Your task to perform on an android device: Add "logitech g pro" to the cart on ebay.com, then select checkout. Image 0: 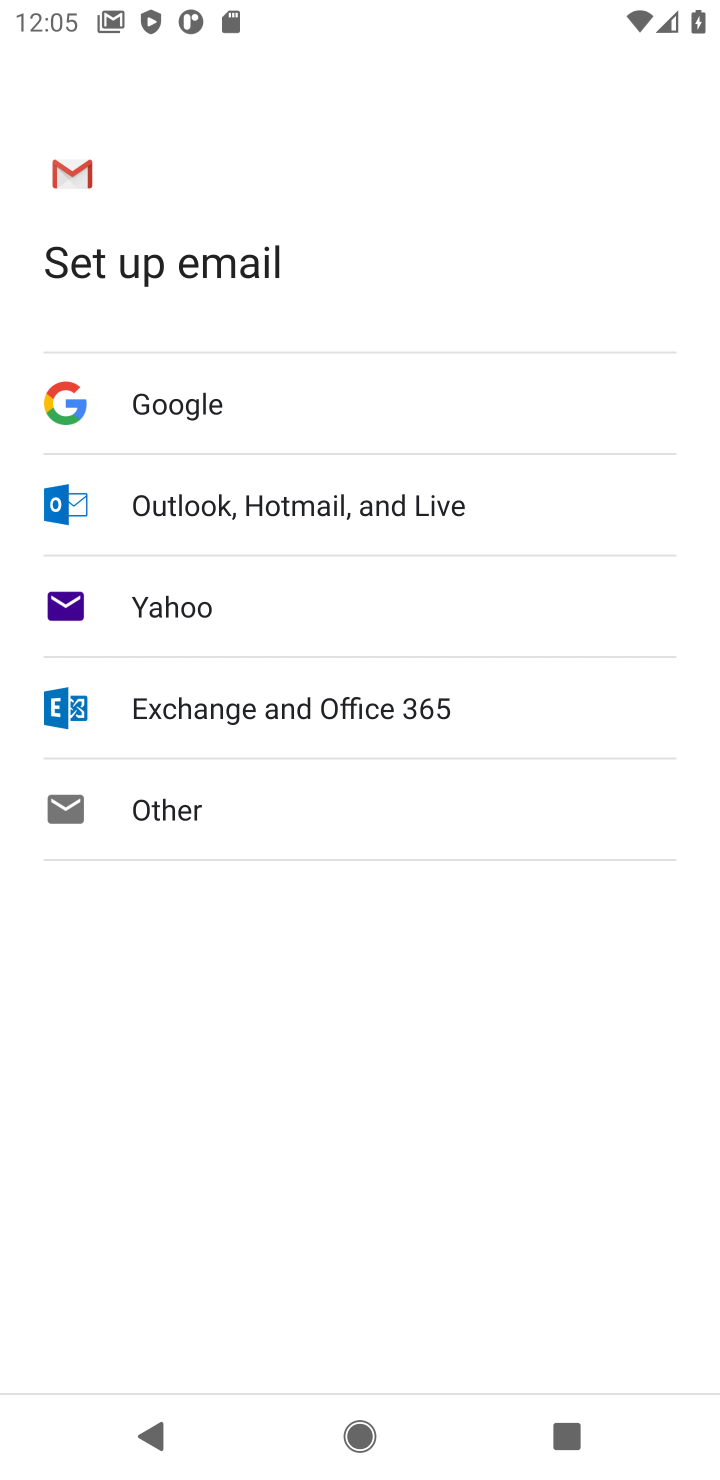
Step 0: press home button
Your task to perform on an android device: Add "logitech g pro" to the cart on ebay.com, then select checkout. Image 1: 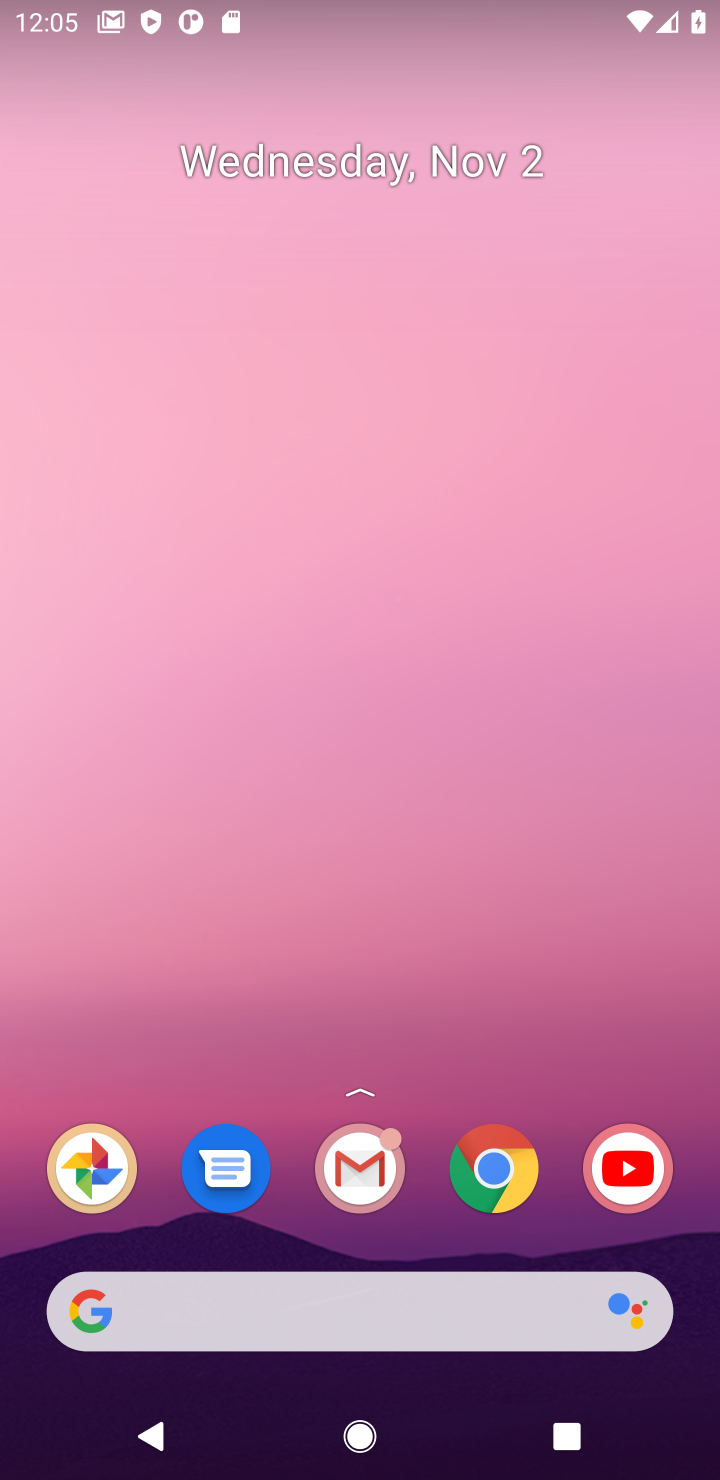
Step 1: click (491, 1175)
Your task to perform on an android device: Add "logitech g pro" to the cart on ebay.com, then select checkout. Image 2: 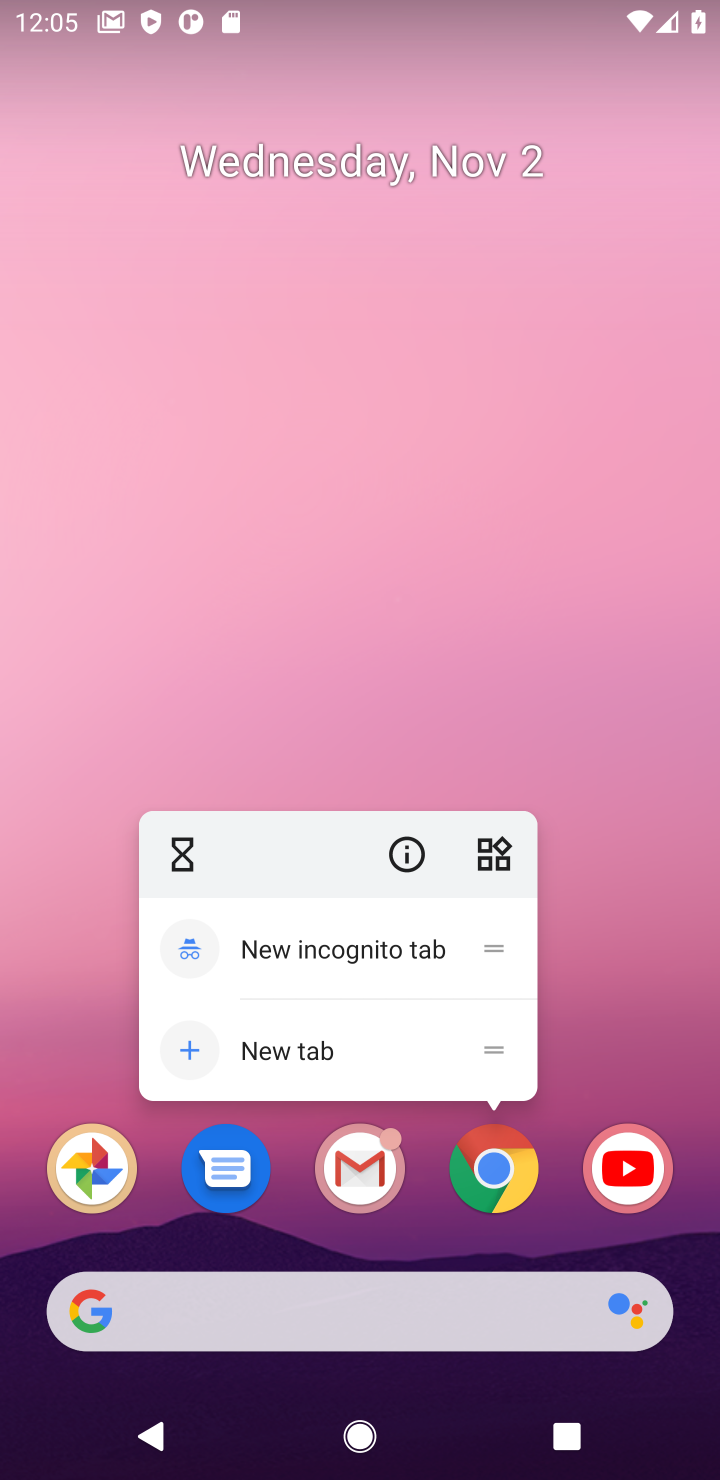
Step 2: click (491, 1175)
Your task to perform on an android device: Add "logitech g pro" to the cart on ebay.com, then select checkout. Image 3: 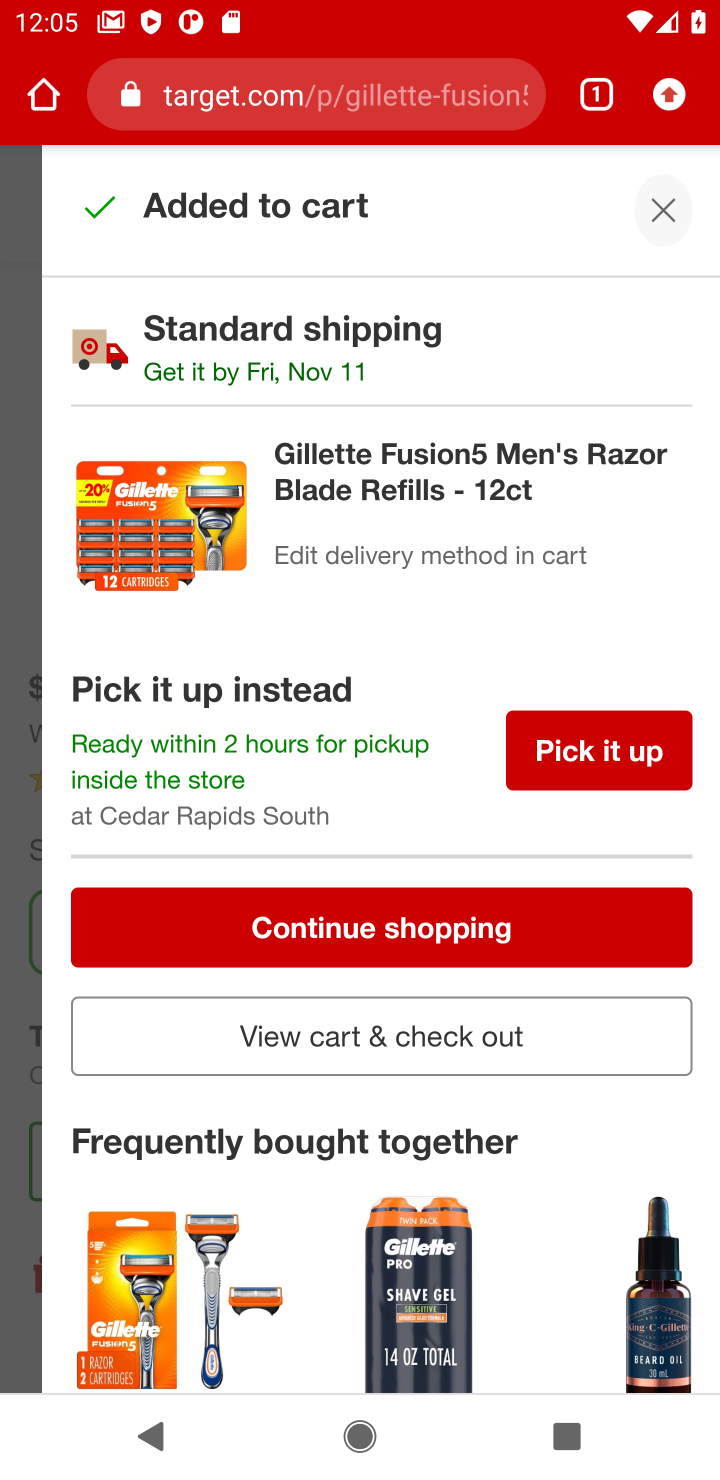
Step 3: click (370, 113)
Your task to perform on an android device: Add "logitech g pro" to the cart on ebay.com, then select checkout. Image 4: 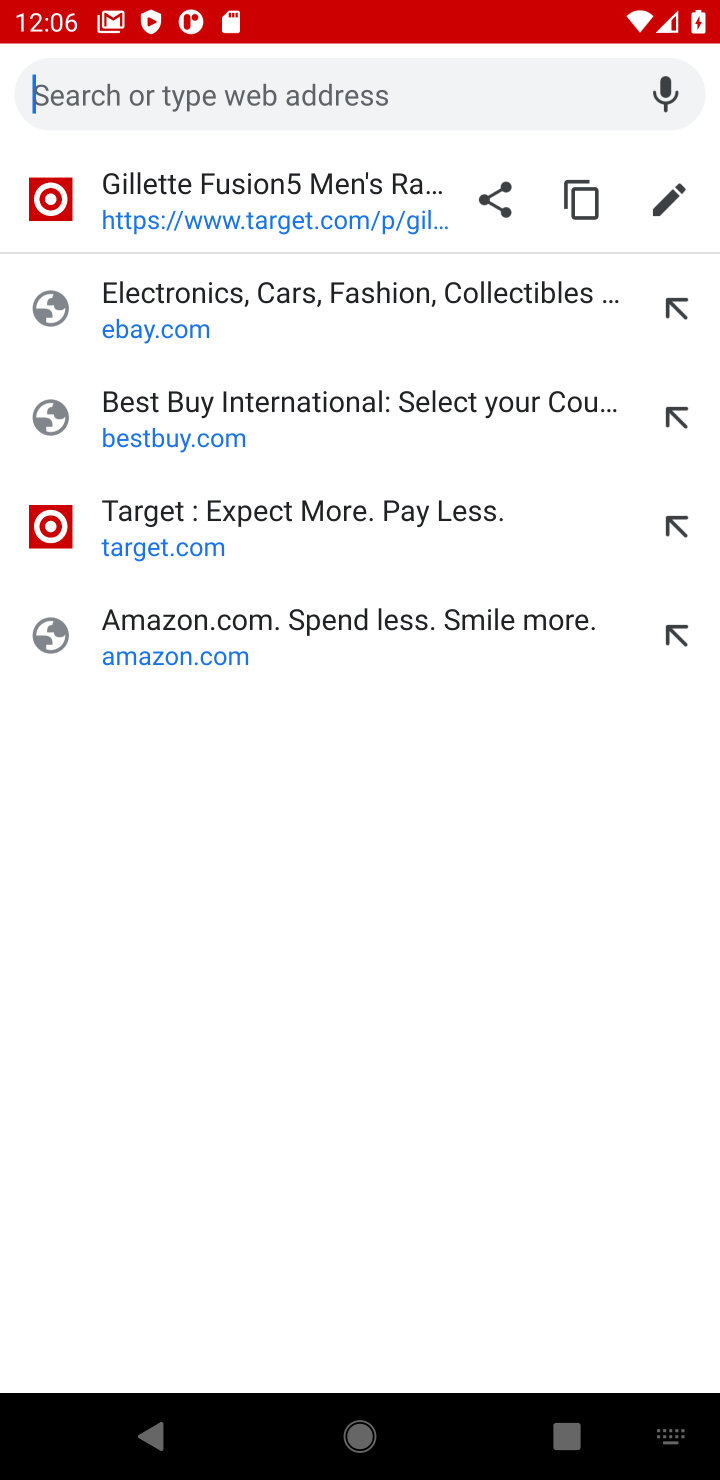
Step 4: press enter
Your task to perform on an android device: Add "logitech g pro" to the cart on ebay.com, then select checkout. Image 5: 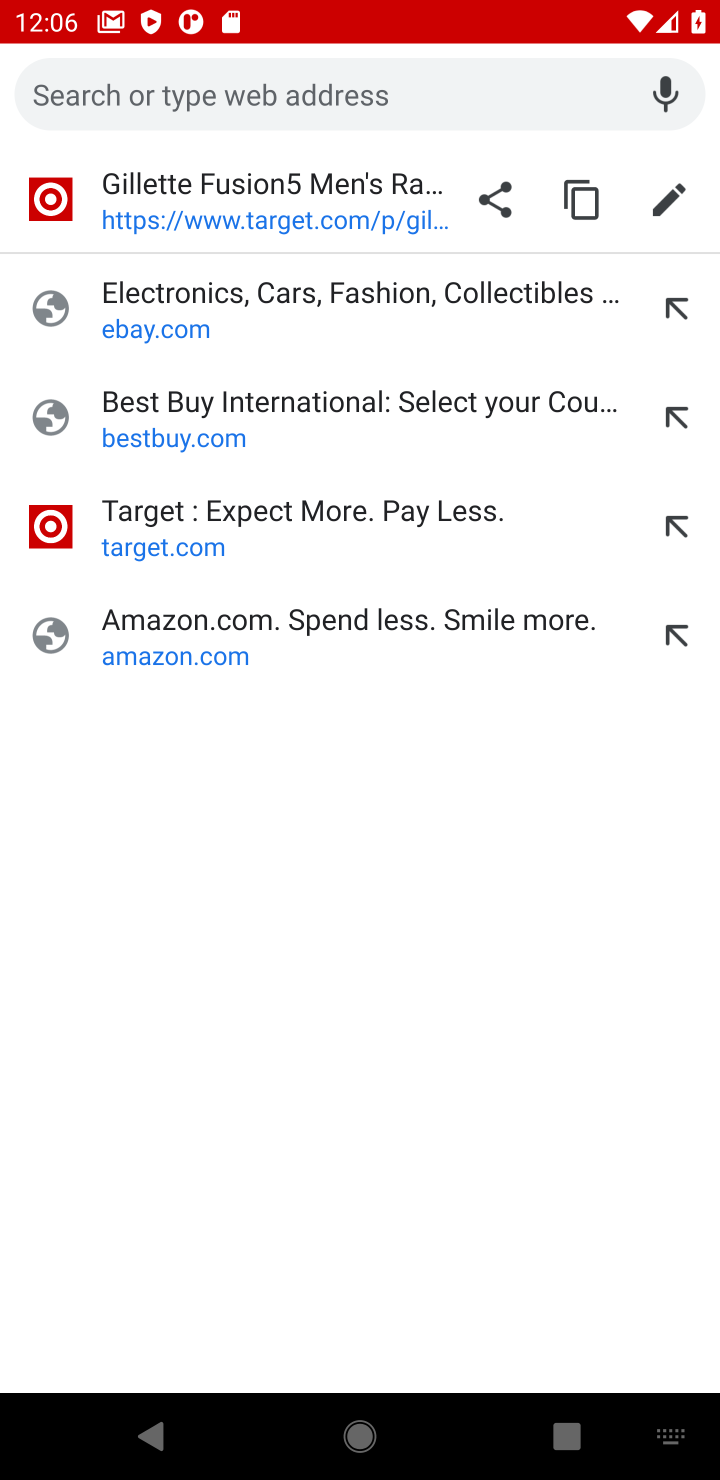
Step 5: type "ebay.com"
Your task to perform on an android device: Add "logitech g pro" to the cart on ebay.com, then select checkout. Image 6: 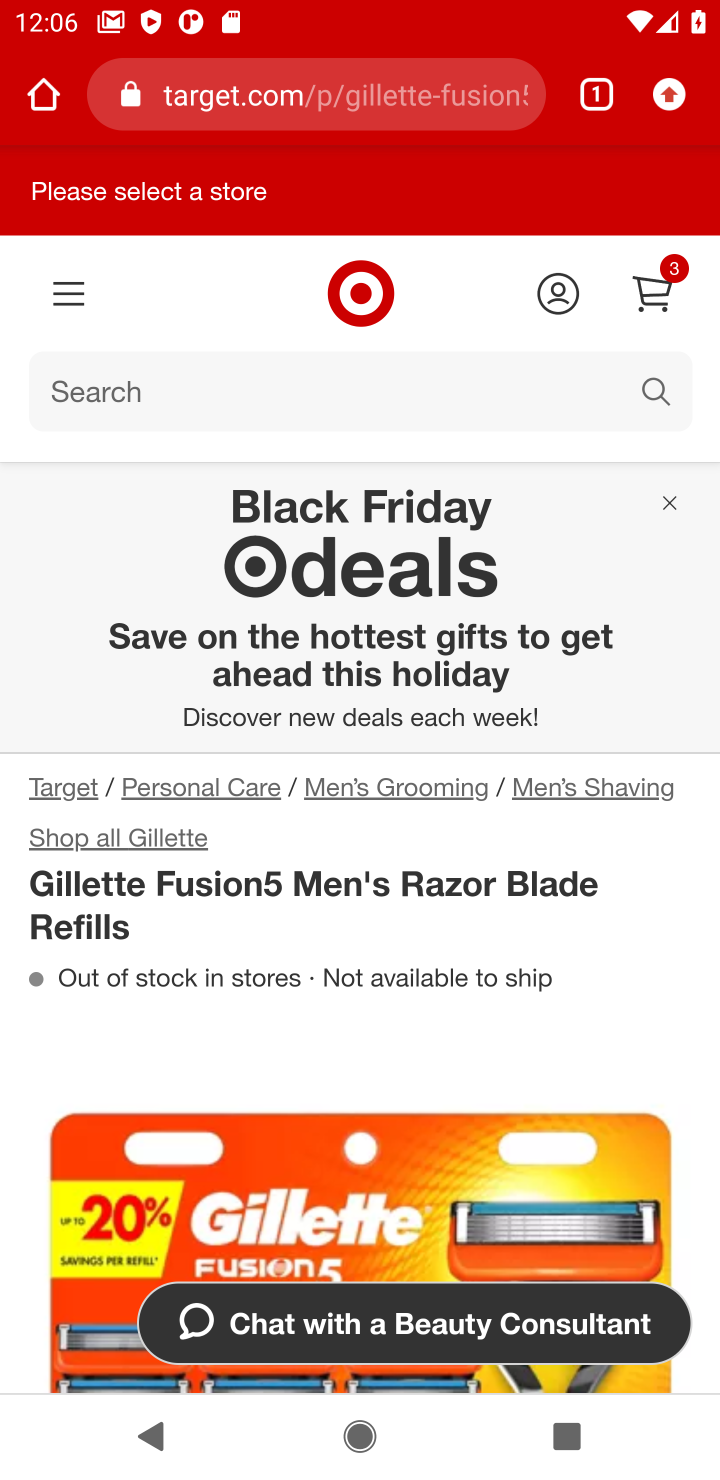
Step 6: click (39, 90)
Your task to perform on an android device: Add "logitech g pro" to the cart on ebay.com, then select checkout. Image 7: 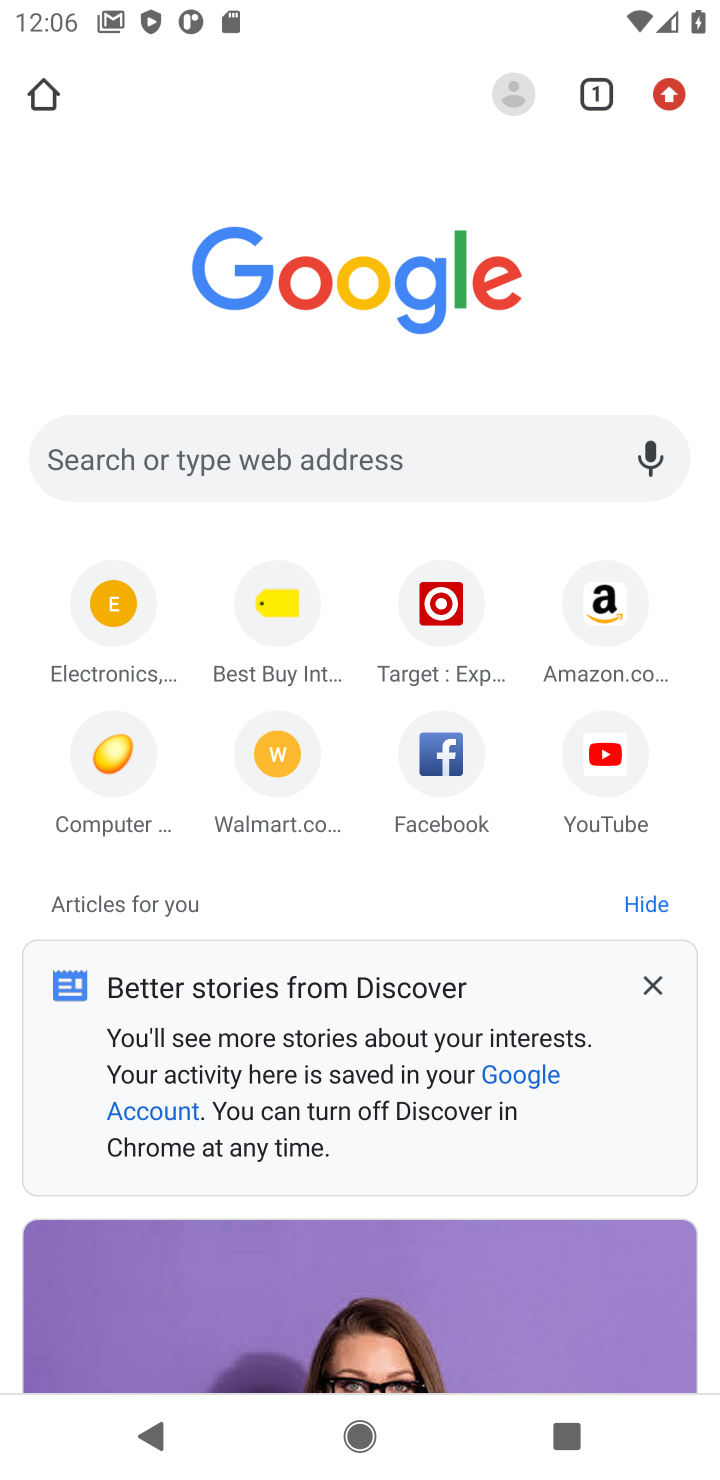
Step 7: click (454, 454)
Your task to perform on an android device: Add "logitech g pro" to the cart on ebay.com, then select checkout. Image 8: 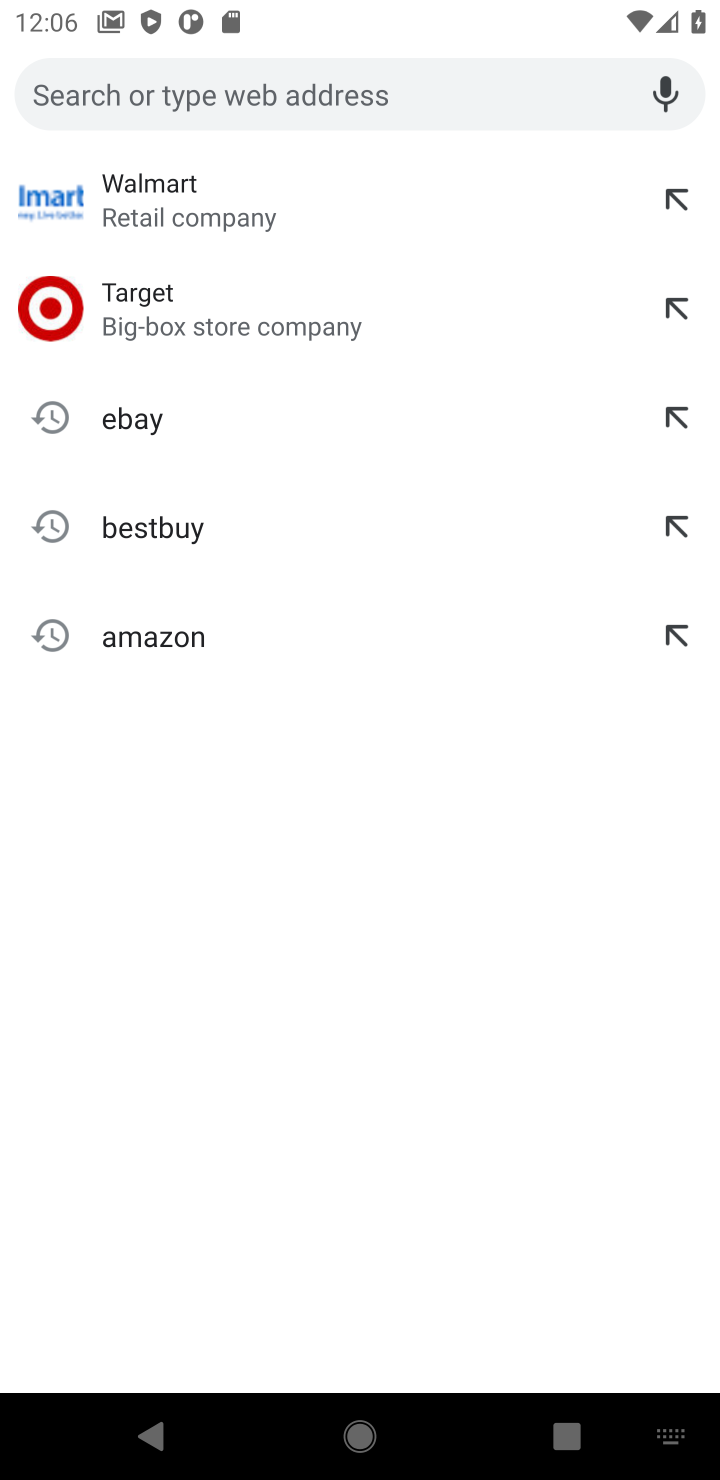
Step 8: press enter
Your task to perform on an android device: Add "logitech g pro" to the cart on ebay.com, then select checkout. Image 9: 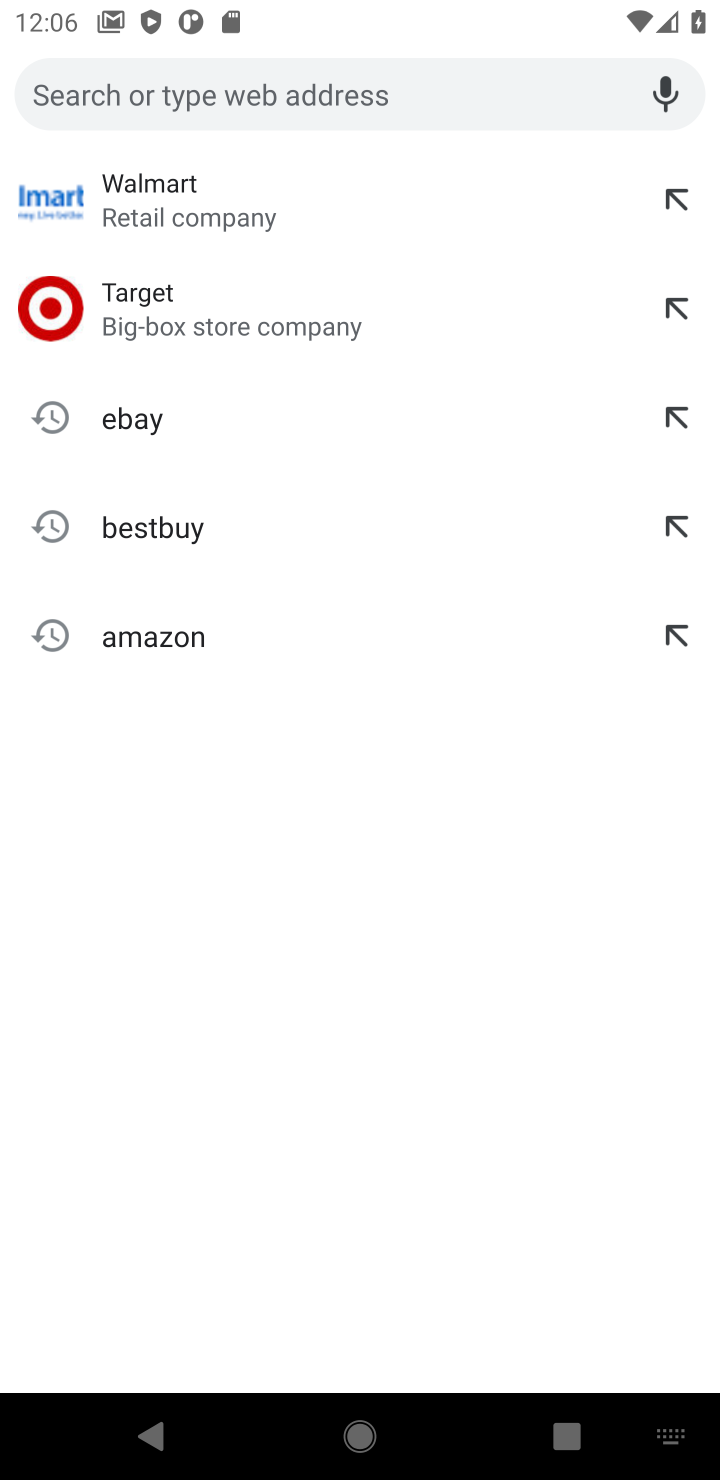
Step 9: type "ebay.com"
Your task to perform on an android device: Add "logitech g pro" to the cart on ebay.com, then select checkout. Image 10: 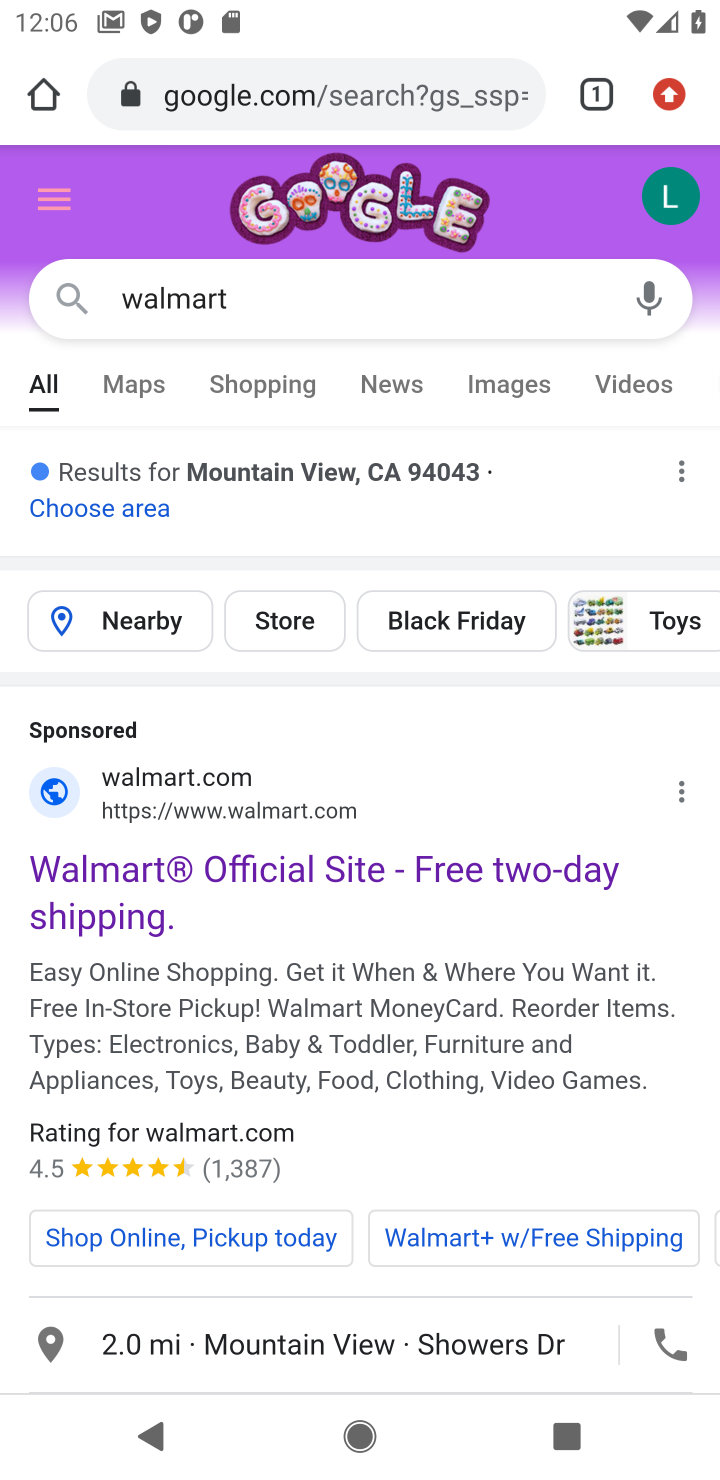
Step 10: click (420, 92)
Your task to perform on an android device: Add "logitech g pro" to the cart on ebay.com, then select checkout. Image 11: 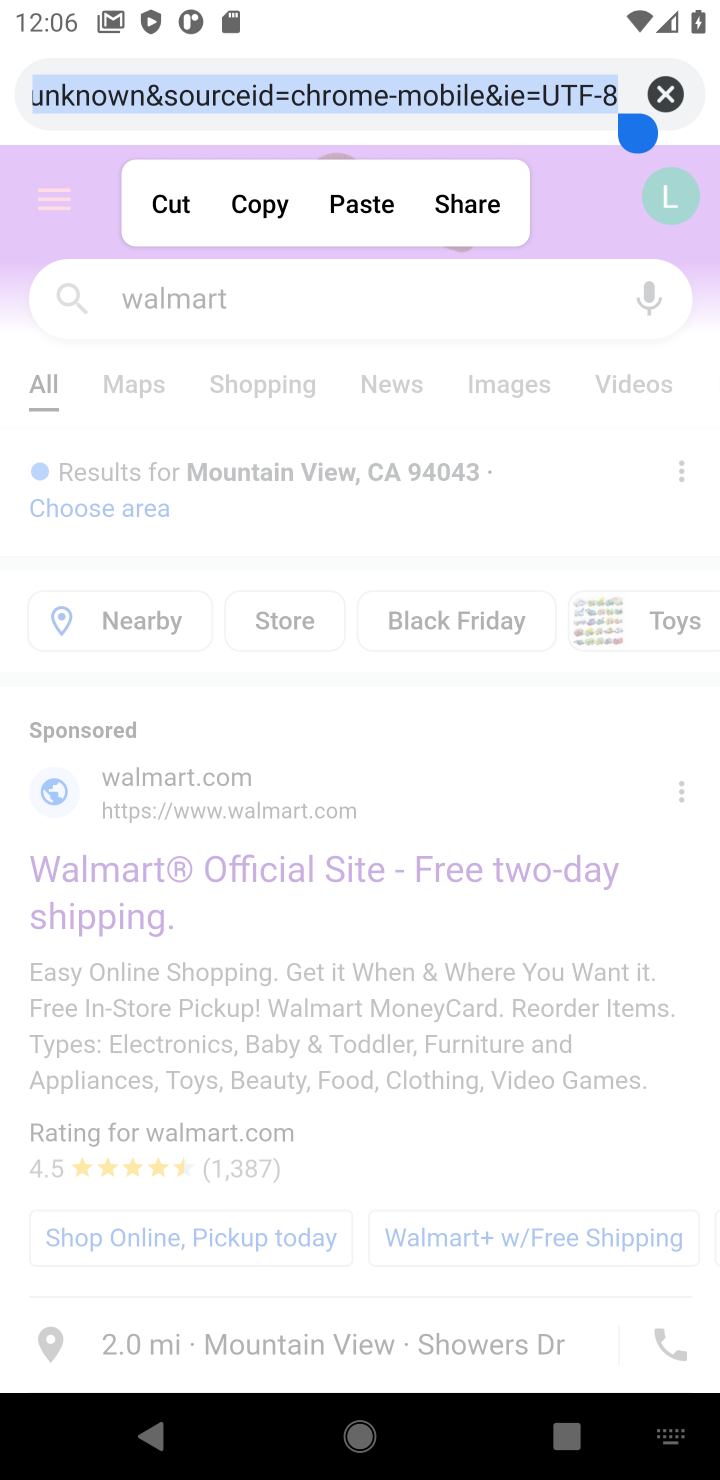
Step 11: click (660, 97)
Your task to perform on an android device: Add "logitech g pro" to the cart on ebay.com, then select checkout. Image 12: 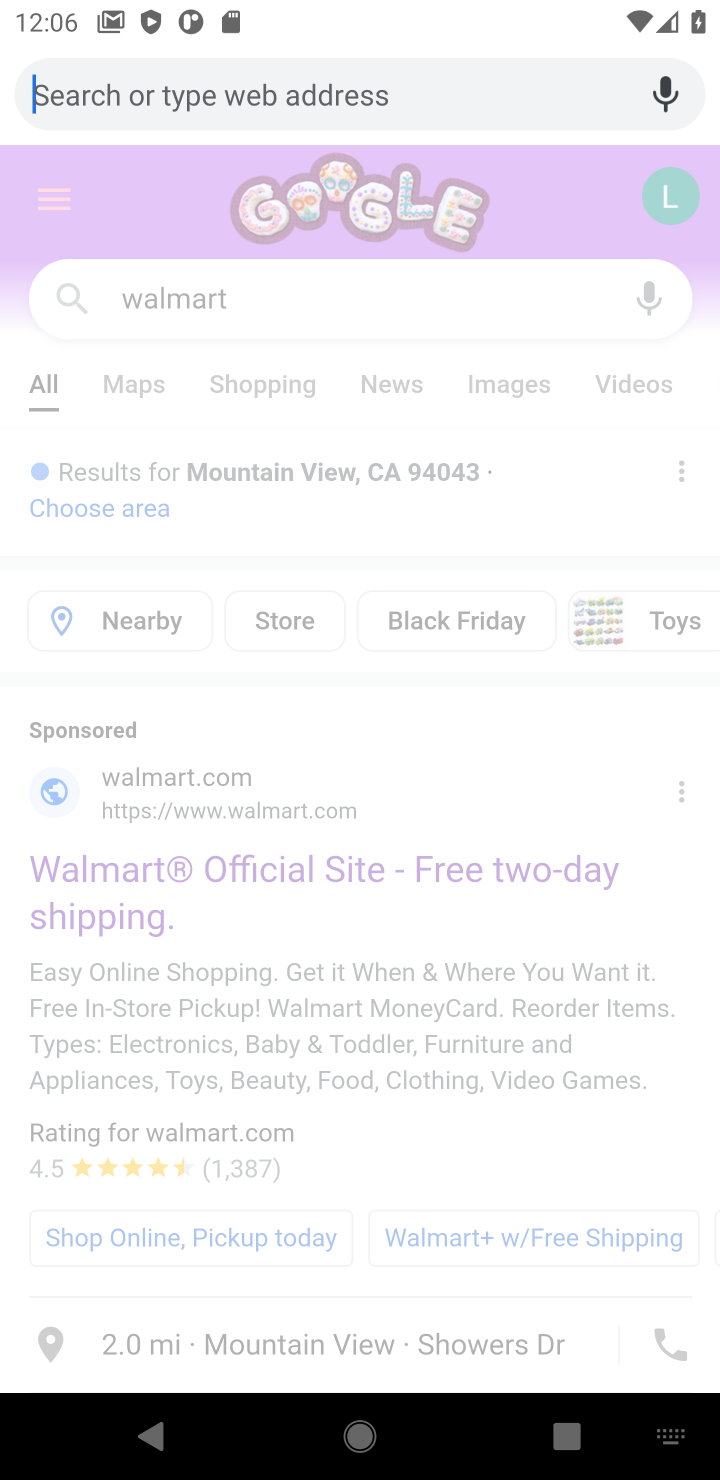
Step 12: press enter
Your task to perform on an android device: Add "logitech g pro" to the cart on ebay.com, then select checkout. Image 13: 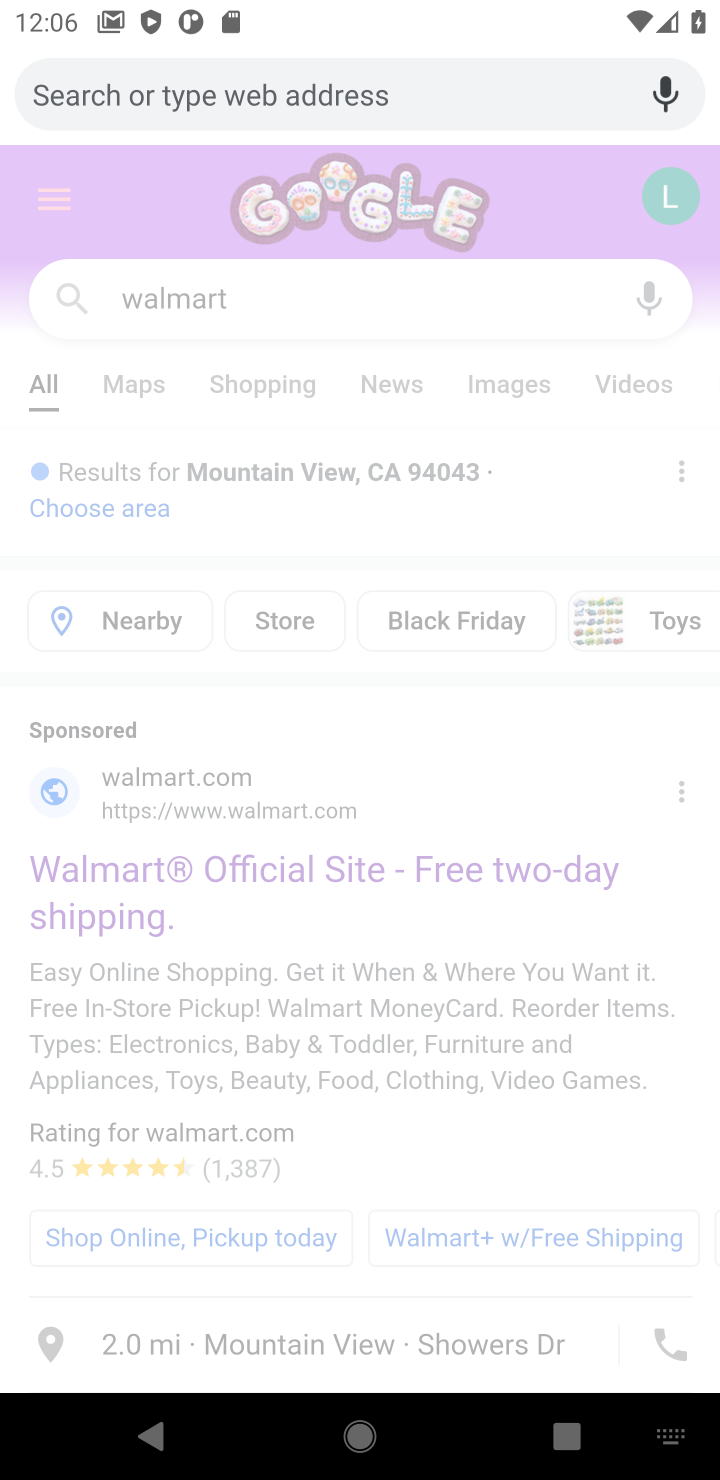
Step 13: type "ebay.com"
Your task to perform on an android device: Add "logitech g pro" to the cart on ebay.com, then select checkout. Image 14: 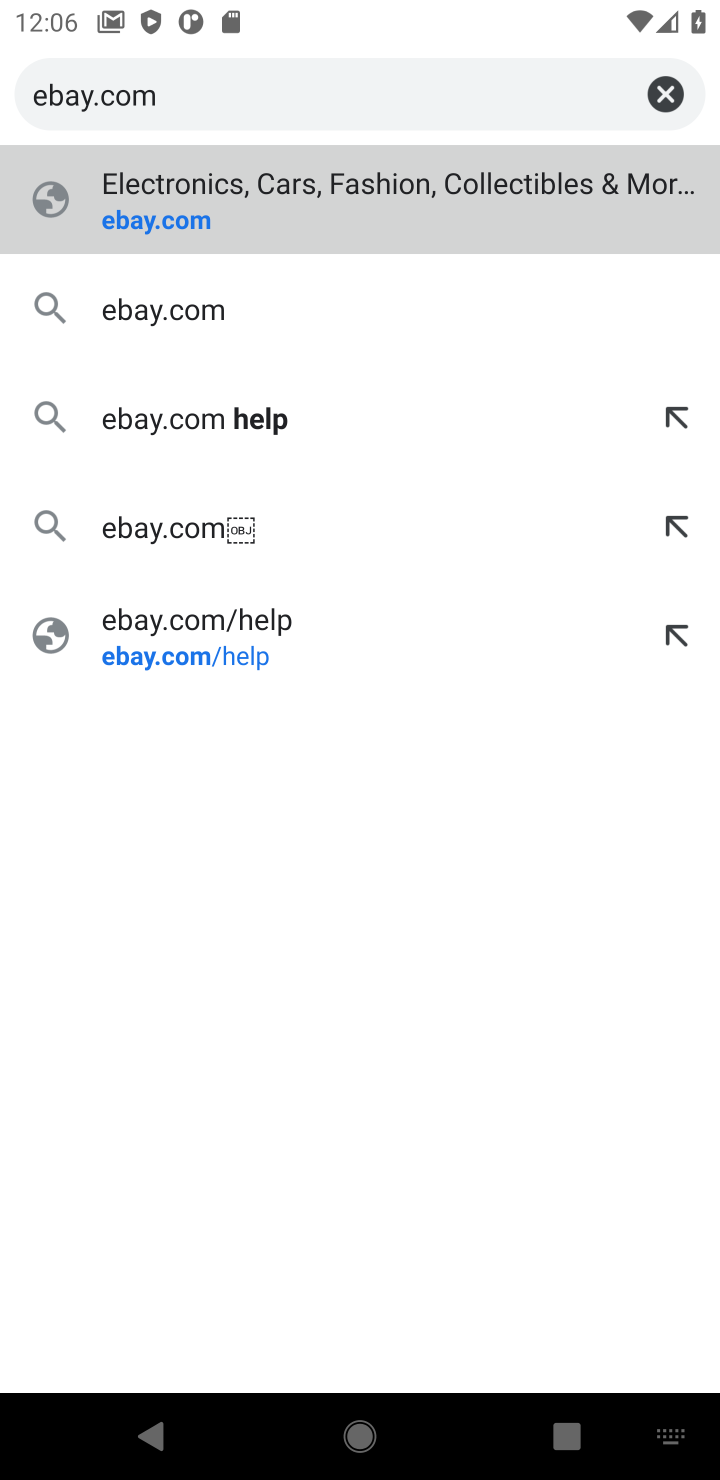
Step 14: click (211, 311)
Your task to perform on an android device: Add "logitech g pro" to the cart on ebay.com, then select checkout. Image 15: 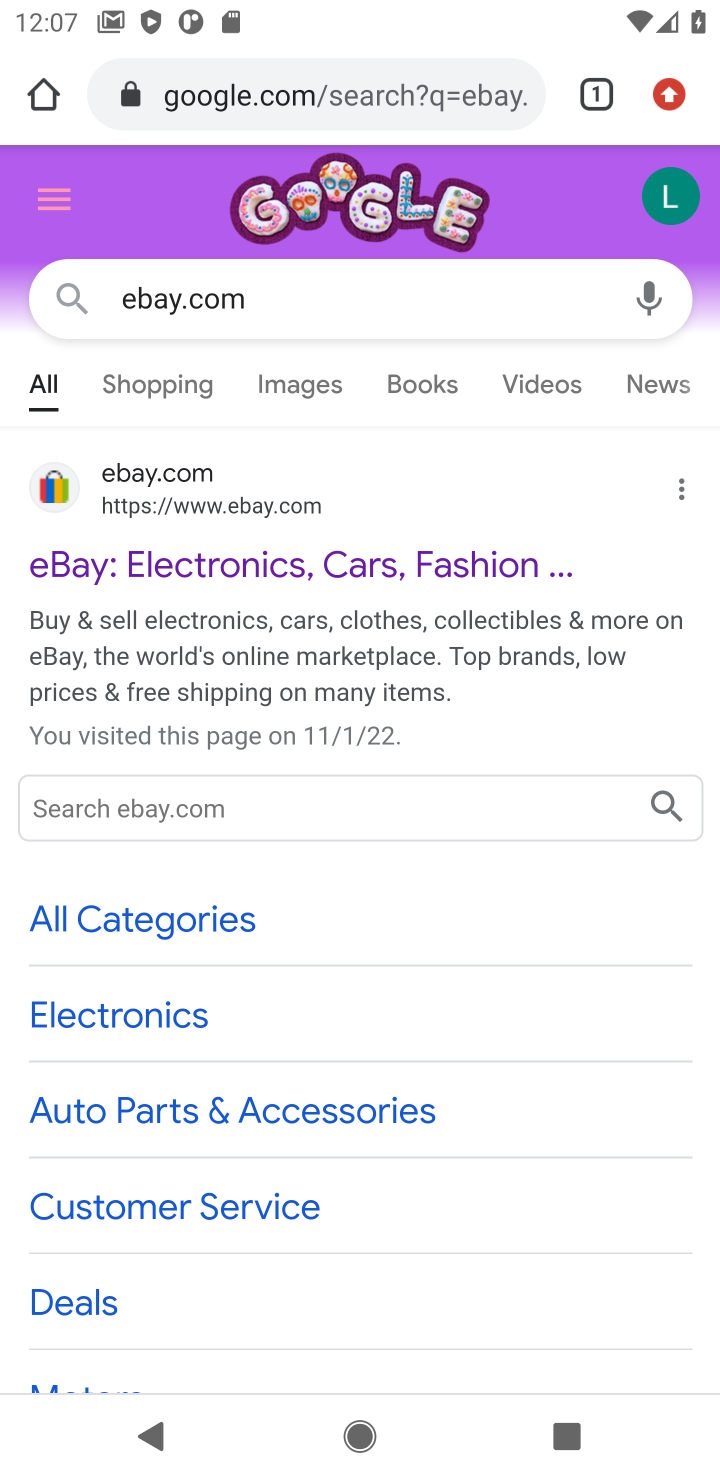
Step 15: click (172, 482)
Your task to perform on an android device: Add "logitech g pro" to the cart on ebay.com, then select checkout. Image 16: 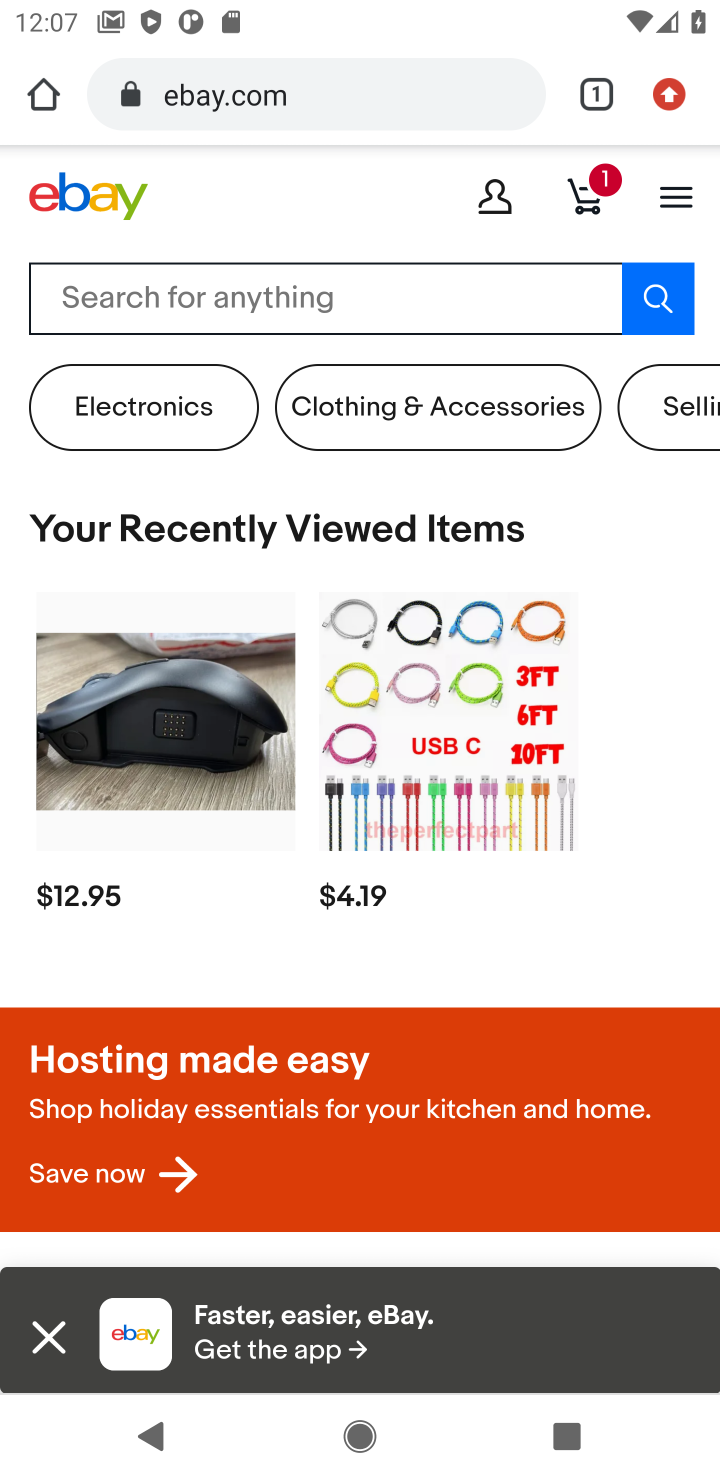
Step 16: click (376, 296)
Your task to perform on an android device: Add "logitech g pro" to the cart on ebay.com, then select checkout. Image 17: 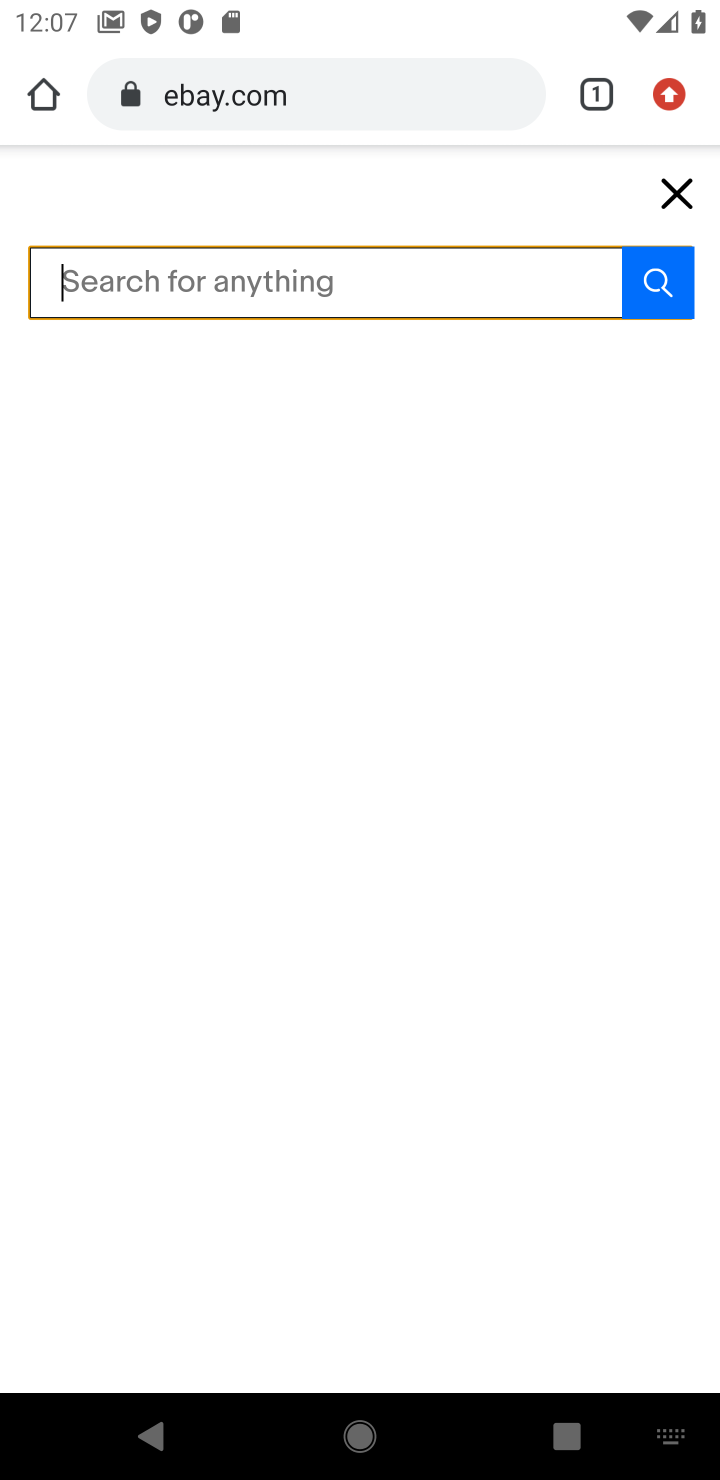
Step 17: type "logitech g pro"
Your task to perform on an android device: Add "logitech g pro" to the cart on ebay.com, then select checkout. Image 18: 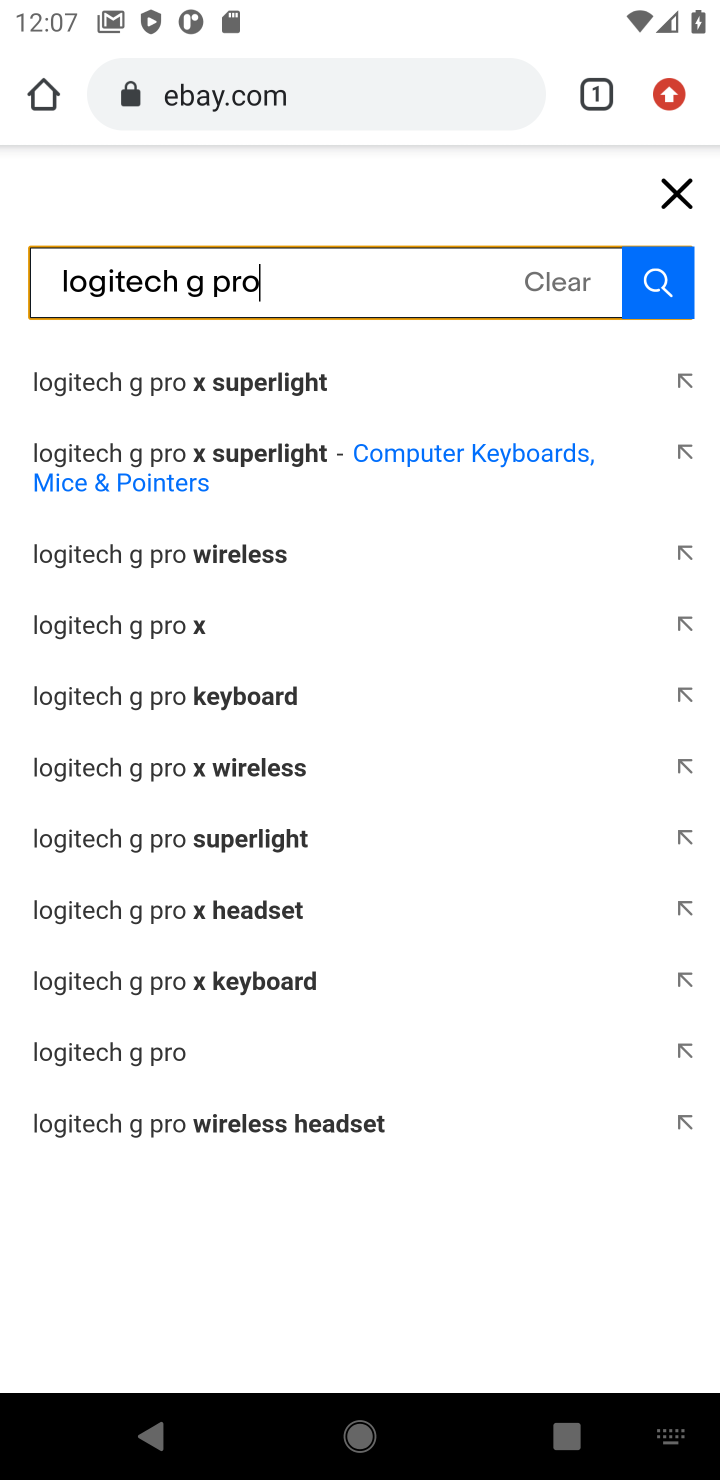
Step 18: click (93, 1061)
Your task to perform on an android device: Add "logitech g pro" to the cart on ebay.com, then select checkout. Image 19: 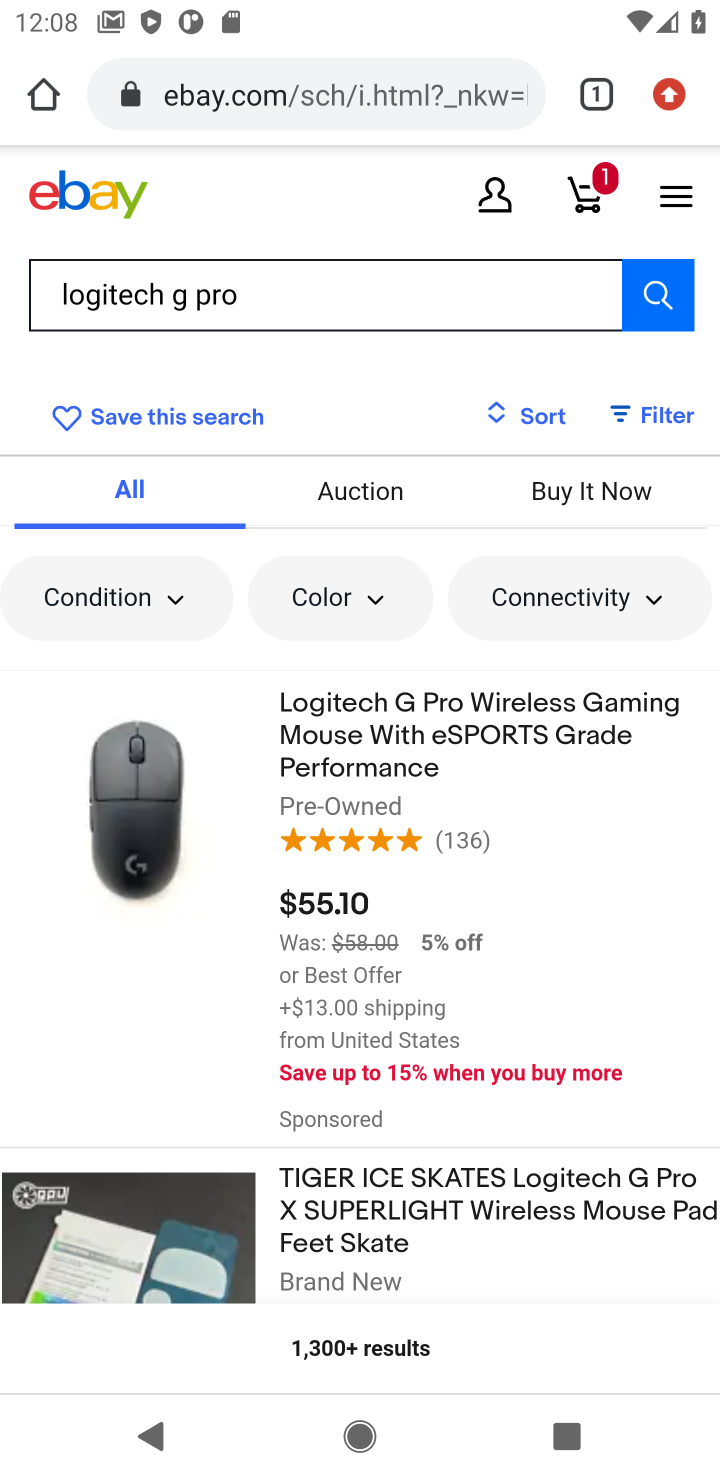
Step 19: click (89, 872)
Your task to perform on an android device: Add "logitech g pro" to the cart on ebay.com, then select checkout. Image 20: 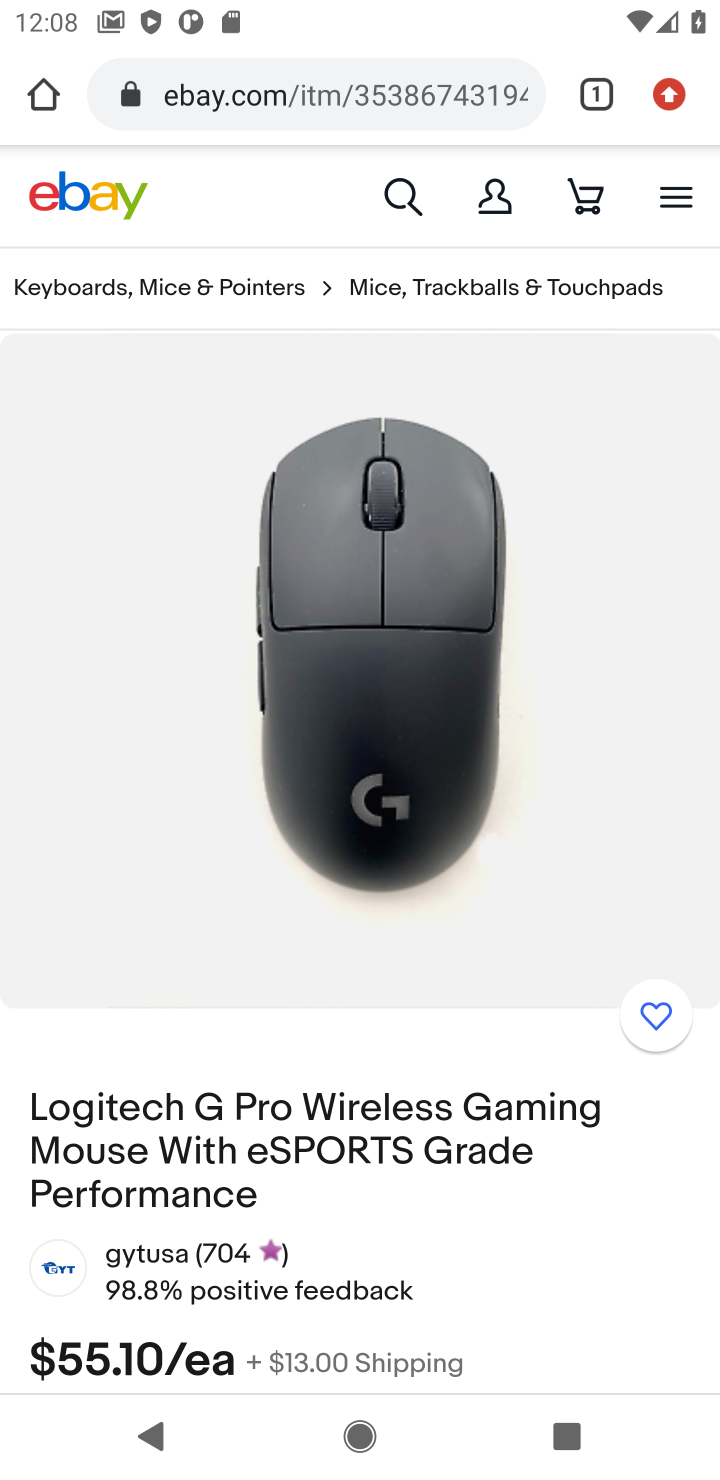
Step 20: drag from (500, 1085) to (492, 589)
Your task to perform on an android device: Add "logitech g pro" to the cart on ebay.com, then select checkout. Image 21: 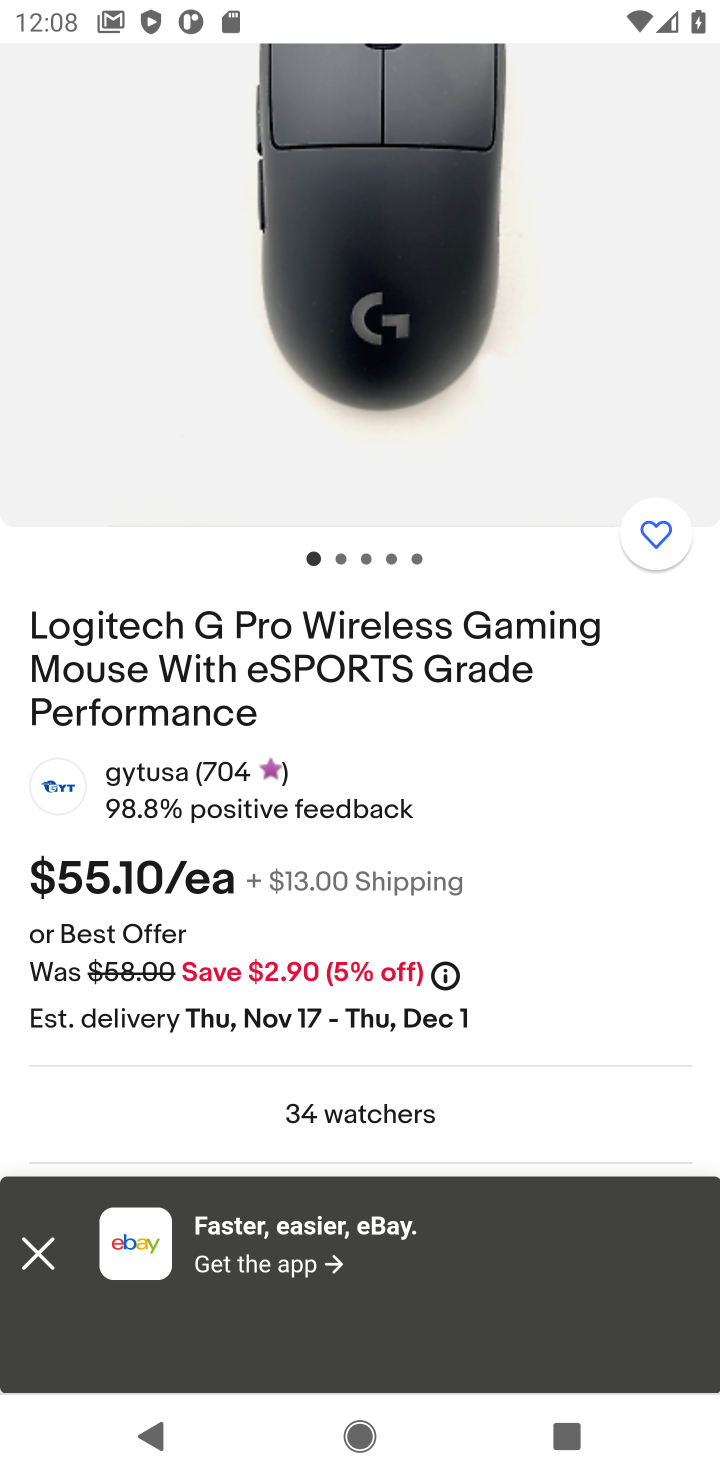
Step 21: drag from (416, 940) to (440, 602)
Your task to perform on an android device: Add "logitech g pro" to the cart on ebay.com, then select checkout. Image 22: 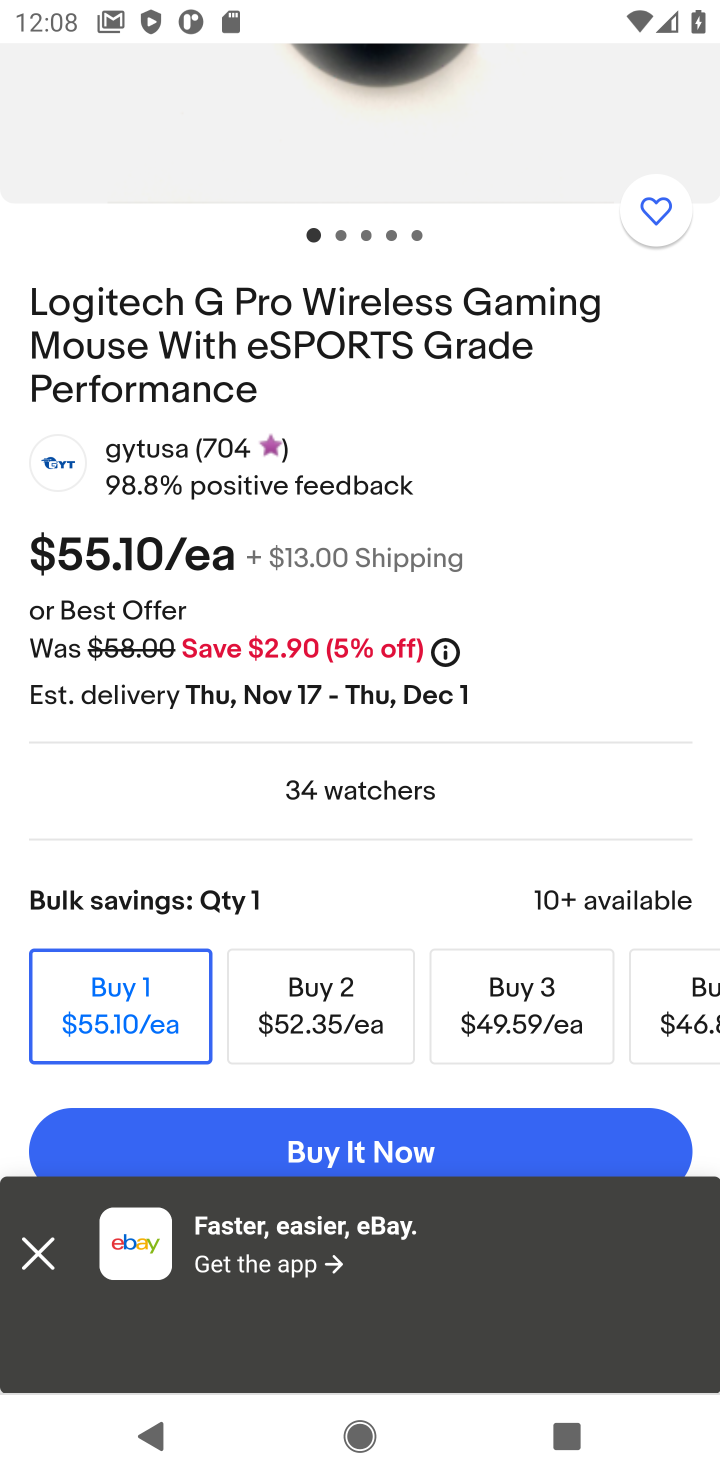
Step 22: drag from (464, 843) to (579, 440)
Your task to perform on an android device: Add "logitech g pro" to the cart on ebay.com, then select checkout. Image 23: 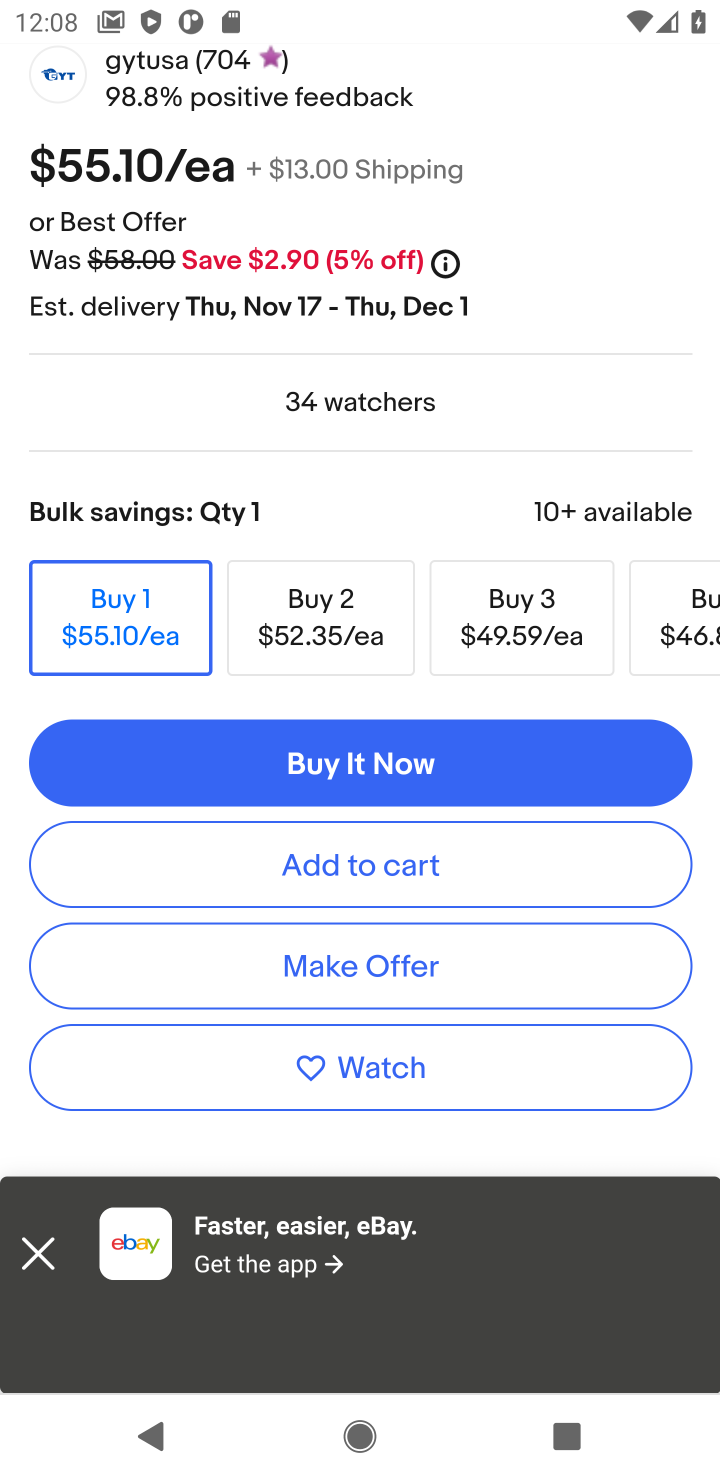
Step 23: click (409, 874)
Your task to perform on an android device: Add "logitech g pro" to the cart on ebay.com, then select checkout. Image 24: 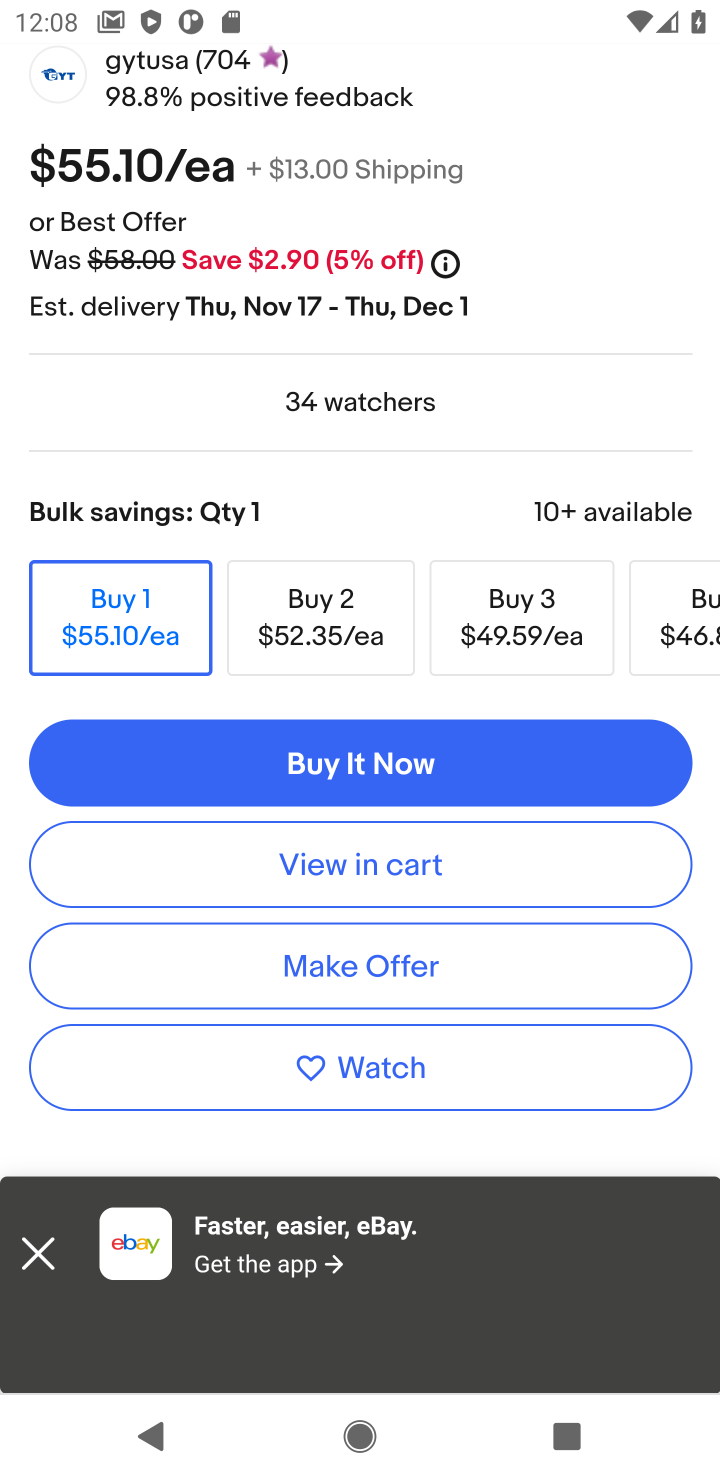
Step 24: click (370, 861)
Your task to perform on an android device: Add "logitech g pro" to the cart on ebay.com, then select checkout. Image 25: 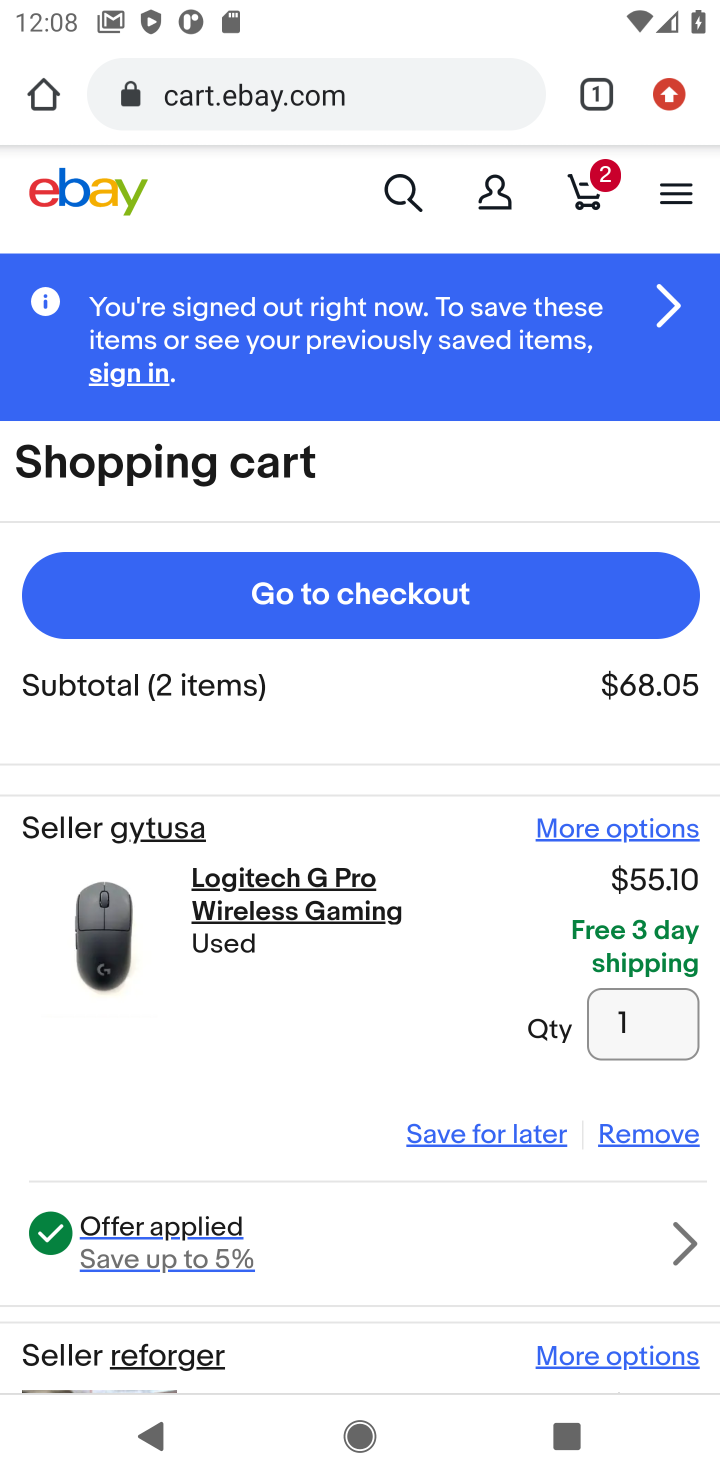
Step 25: click (444, 605)
Your task to perform on an android device: Add "logitech g pro" to the cart on ebay.com, then select checkout. Image 26: 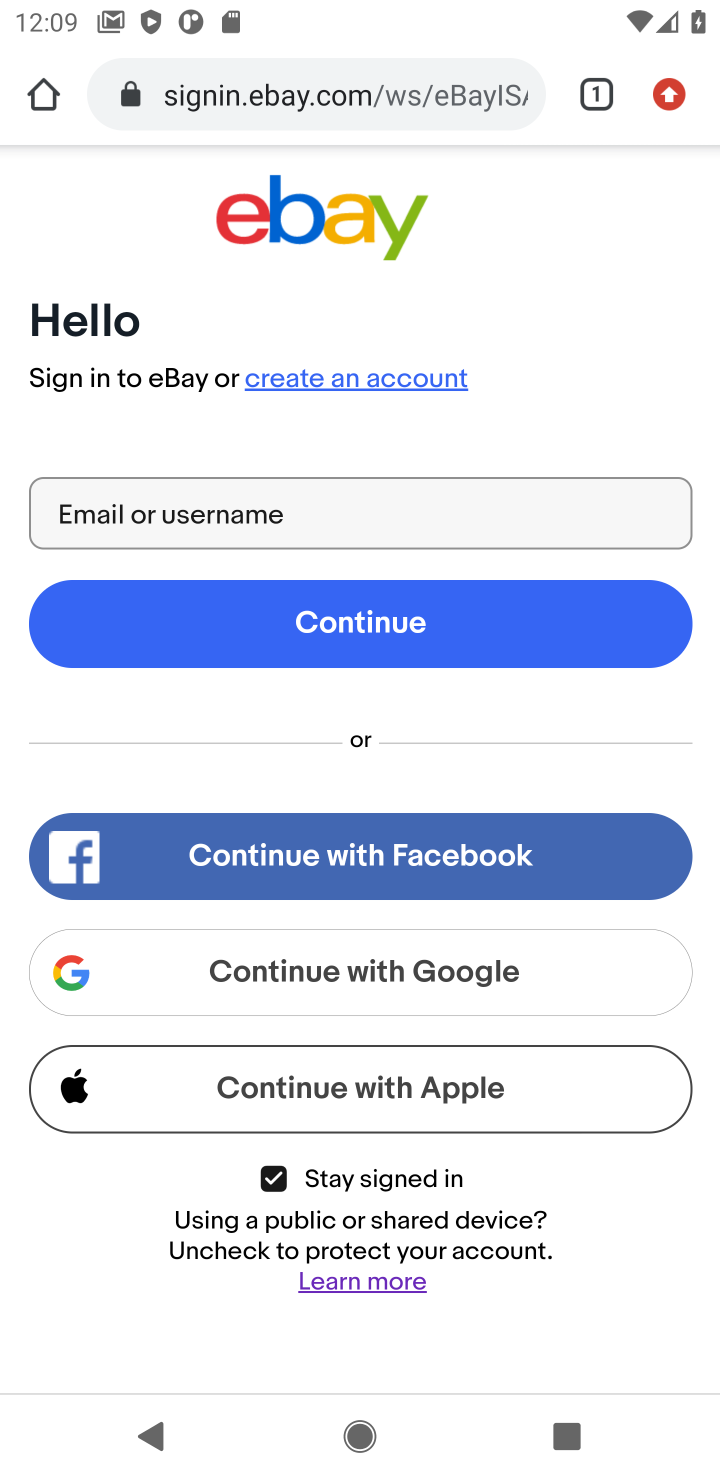
Step 26: task complete